Your task to perform on an android device: change the clock display to show seconds Image 0: 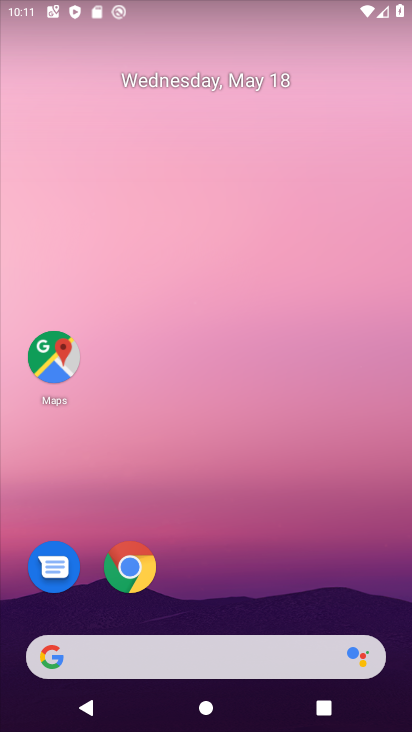
Step 0: drag from (204, 689) to (219, 292)
Your task to perform on an android device: change the clock display to show seconds Image 1: 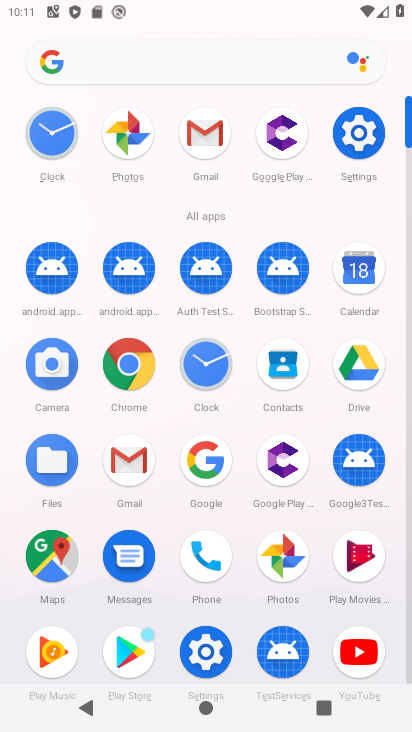
Step 1: click (203, 362)
Your task to perform on an android device: change the clock display to show seconds Image 2: 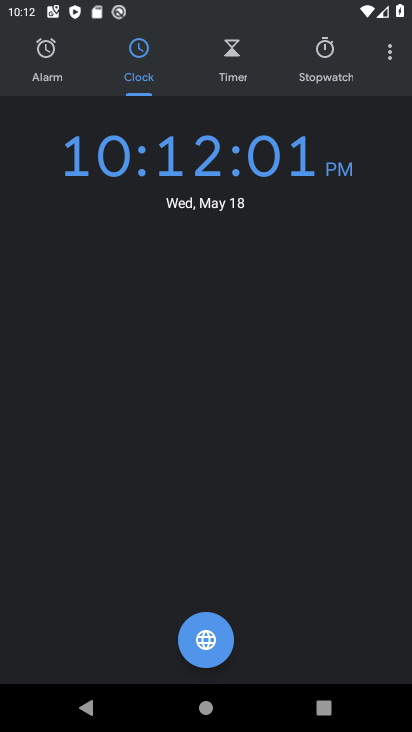
Step 2: click (391, 72)
Your task to perform on an android device: change the clock display to show seconds Image 3: 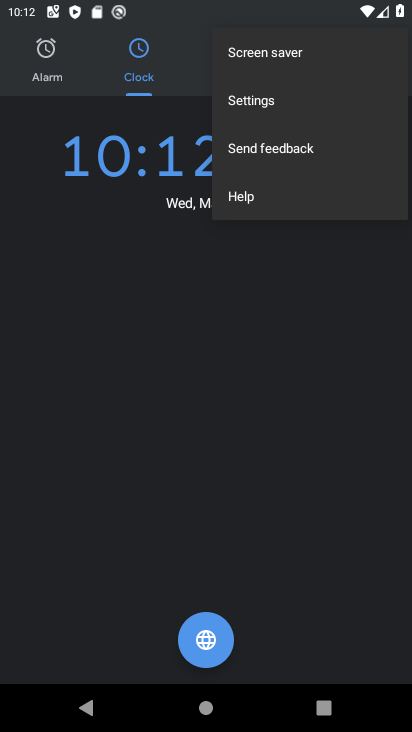
Step 3: click (266, 104)
Your task to perform on an android device: change the clock display to show seconds Image 4: 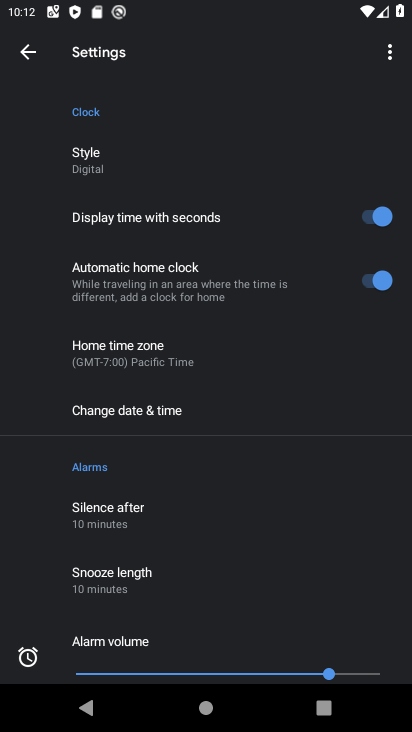
Step 4: click (264, 220)
Your task to perform on an android device: change the clock display to show seconds Image 5: 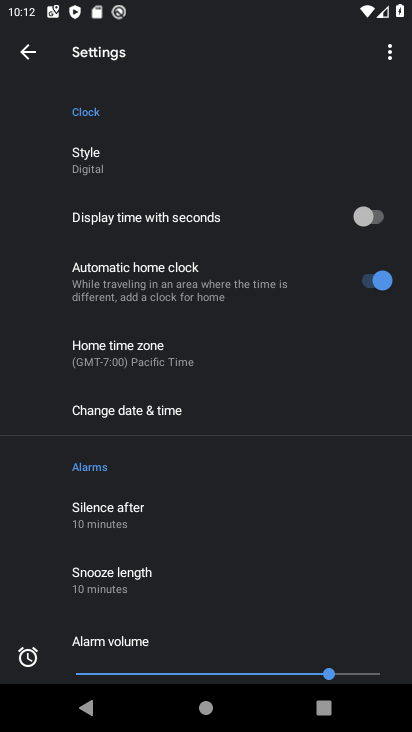
Step 5: task complete